Your task to perform on an android device: Go to internet settings Image 0: 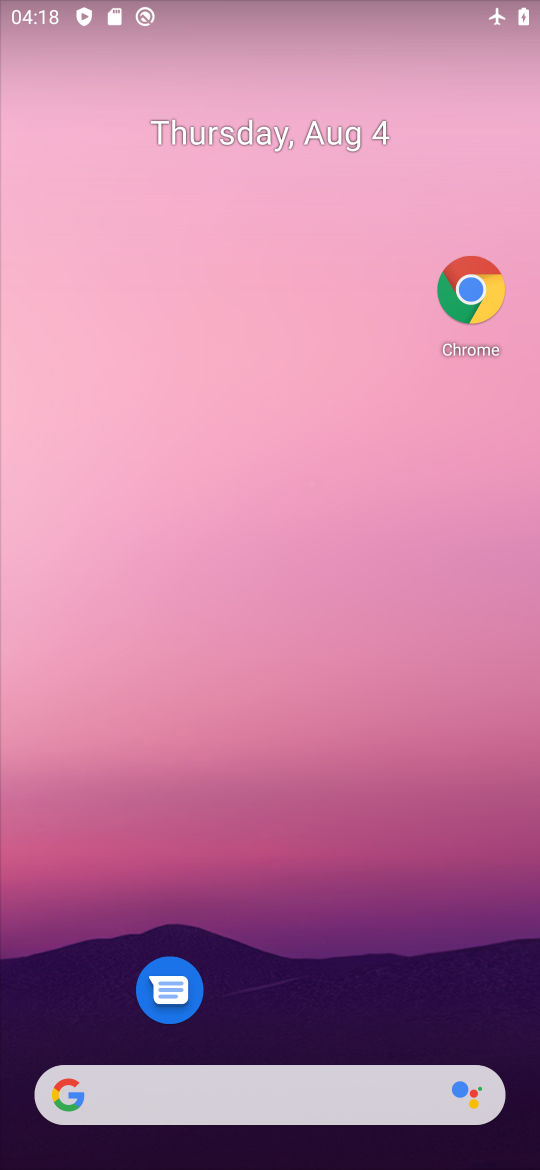
Step 0: drag from (280, 1053) to (217, 100)
Your task to perform on an android device: Go to internet settings Image 1: 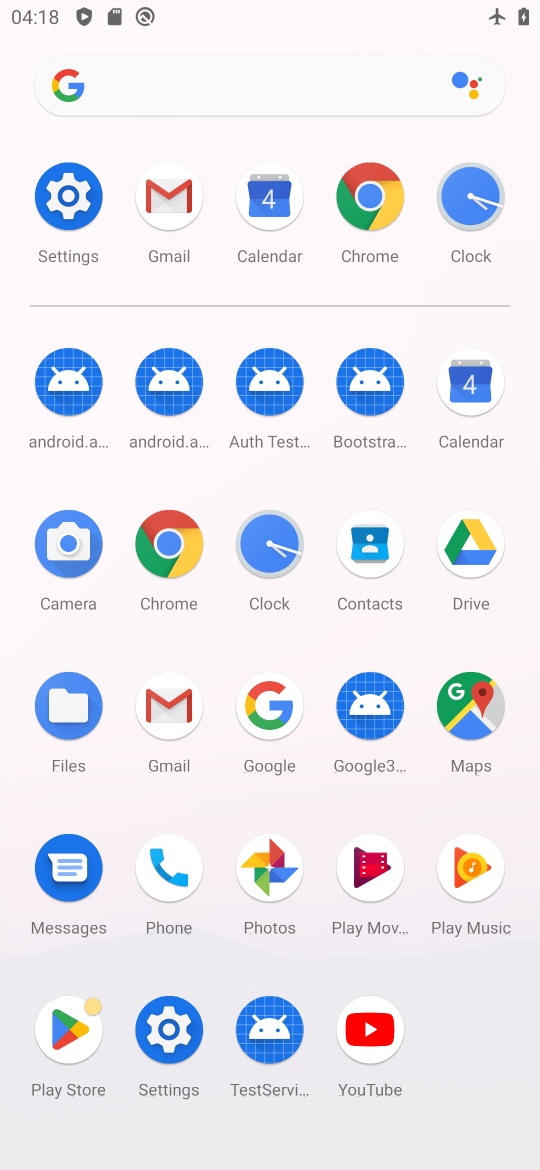
Step 1: click (156, 1031)
Your task to perform on an android device: Go to internet settings Image 2: 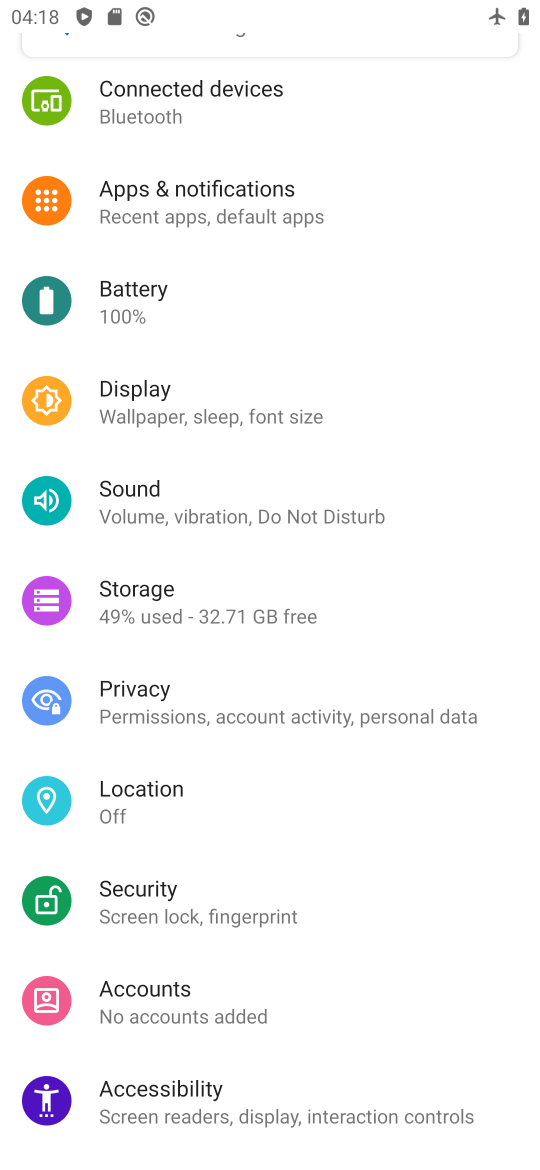
Step 2: drag from (182, 619) to (254, 1120)
Your task to perform on an android device: Go to internet settings Image 3: 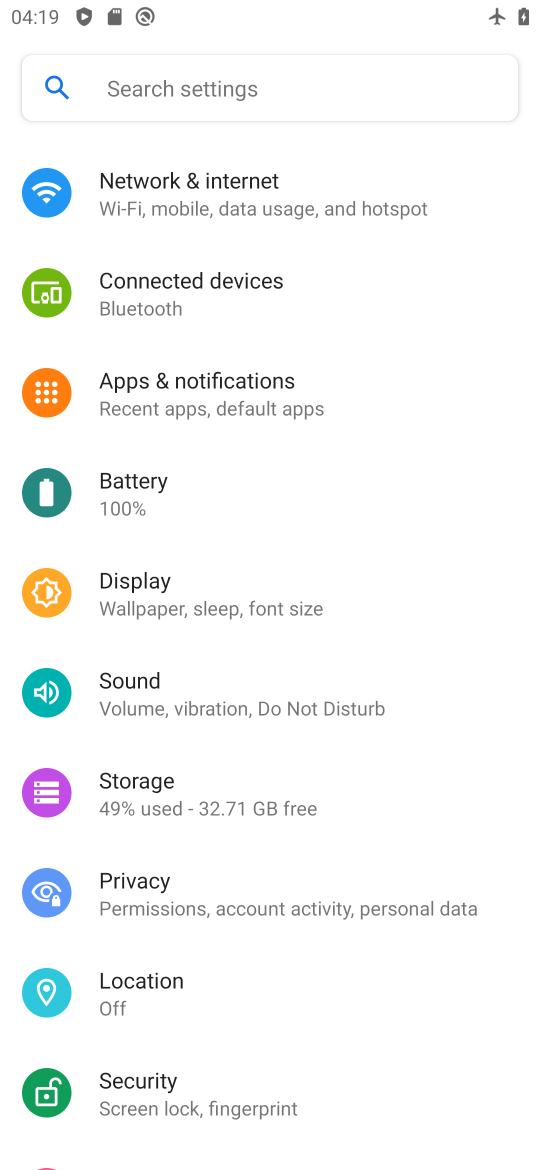
Step 3: drag from (311, 431) to (413, 970)
Your task to perform on an android device: Go to internet settings Image 4: 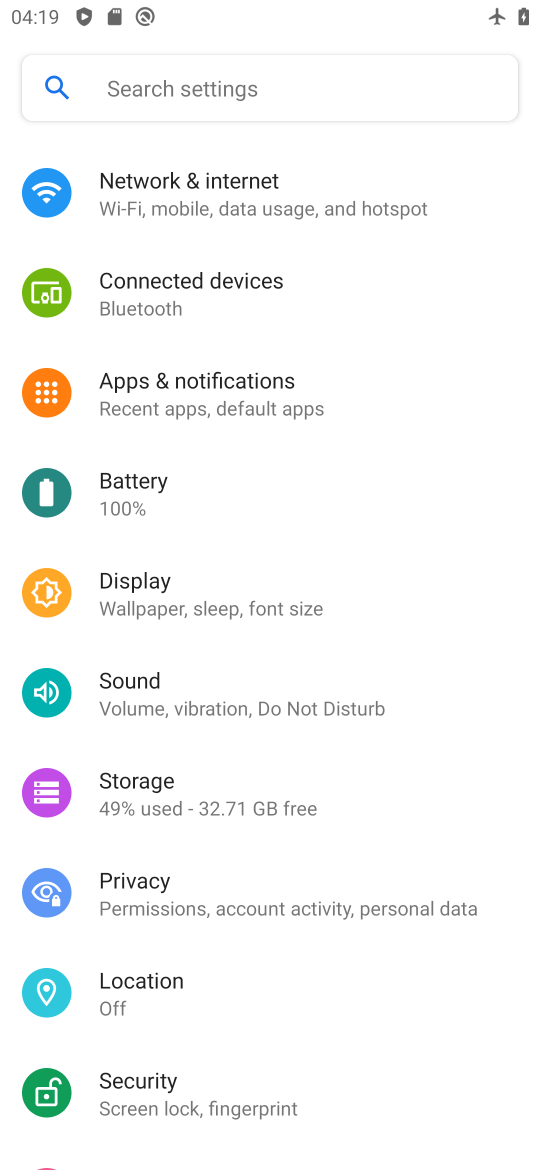
Step 4: click (356, 261)
Your task to perform on an android device: Go to internet settings Image 5: 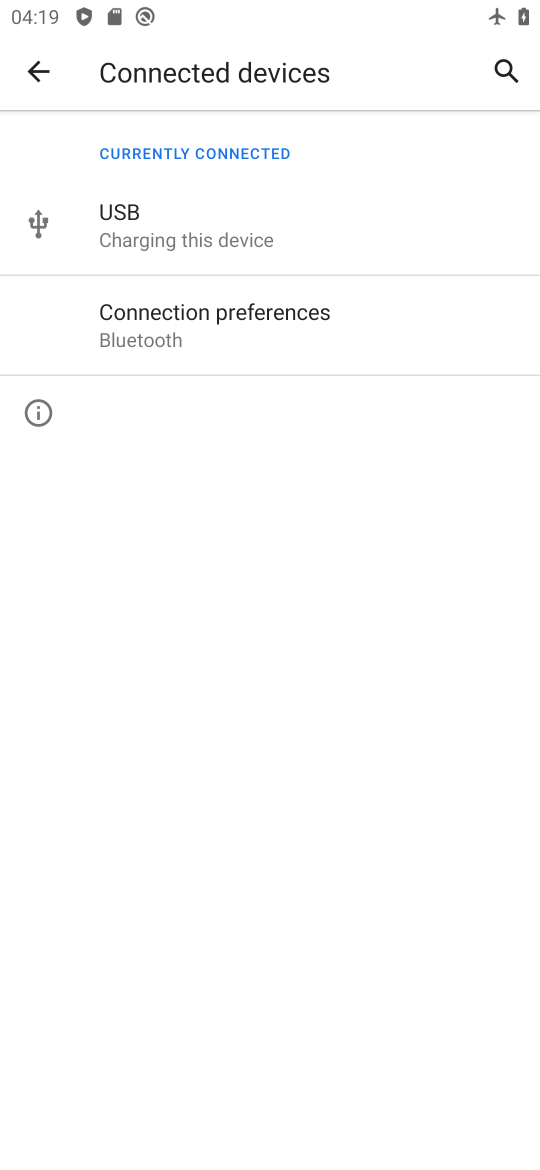
Step 5: task complete